Your task to perform on an android device: When is my next appointment? Image 0: 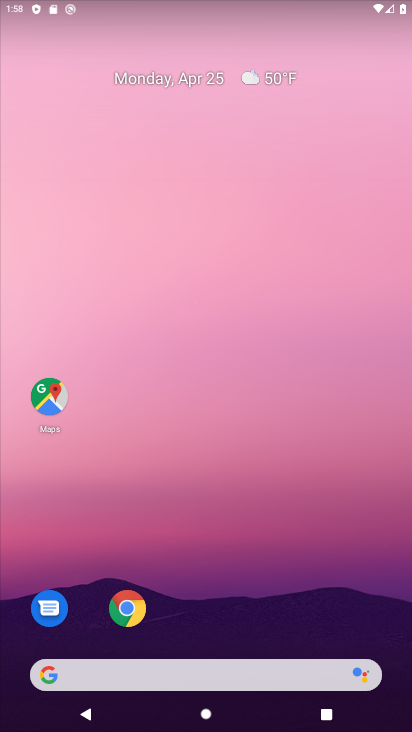
Step 0: drag from (216, 635) to (217, 297)
Your task to perform on an android device: When is my next appointment? Image 1: 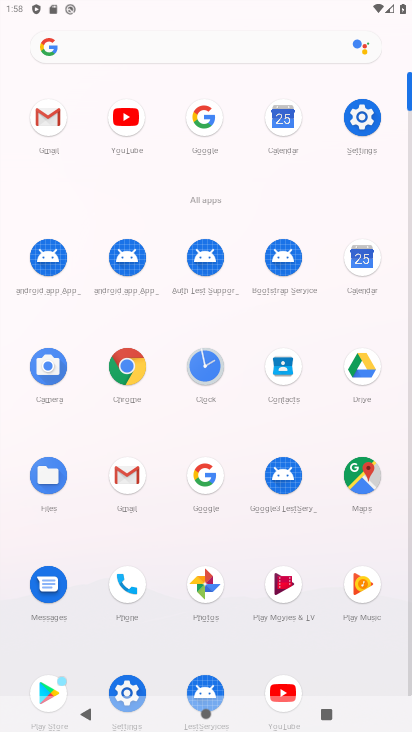
Step 1: click (351, 267)
Your task to perform on an android device: When is my next appointment? Image 2: 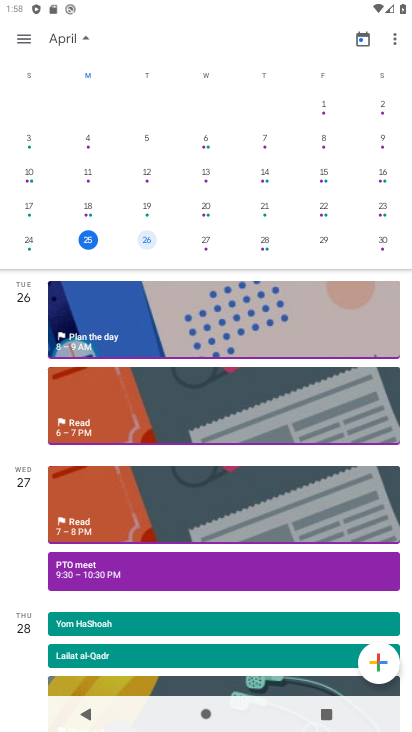
Step 2: click (390, 38)
Your task to perform on an android device: When is my next appointment? Image 3: 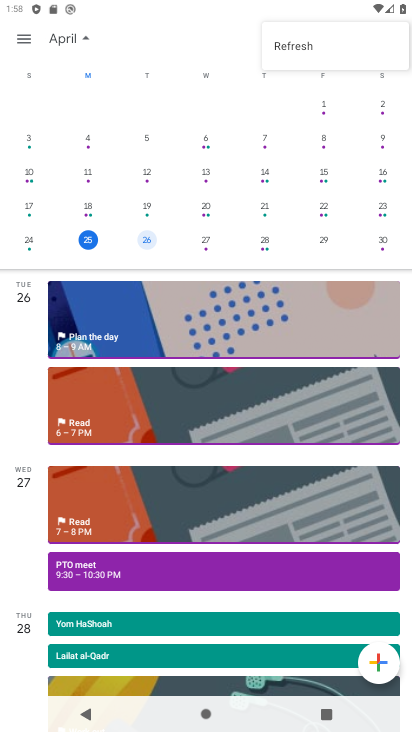
Step 3: click (204, 36)
Your task to perform on an android device: When is my next appointment? Image 4: 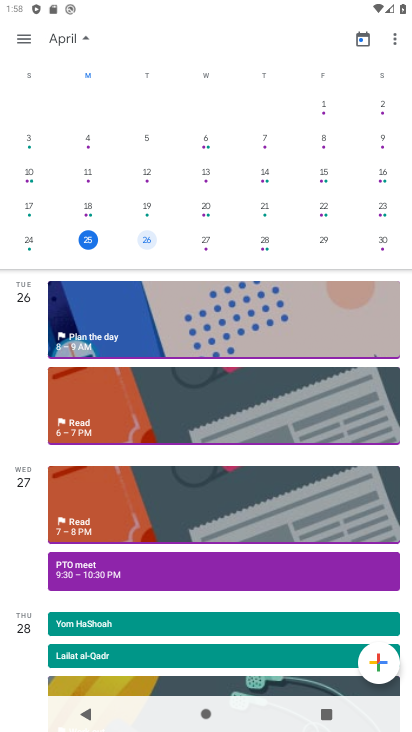
Step 4: click (149, 239)
Your task to perform on an android device: When is my next appointment? Image 5: 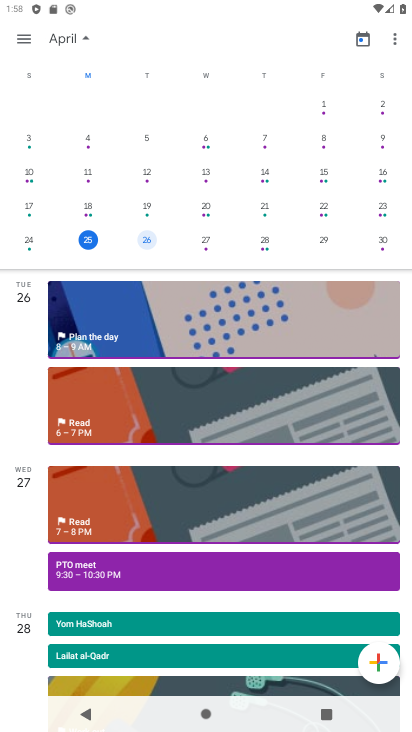
Step 5: click (205, 240)
Your task to perform on an android device: When is my next appointment? Image 6: 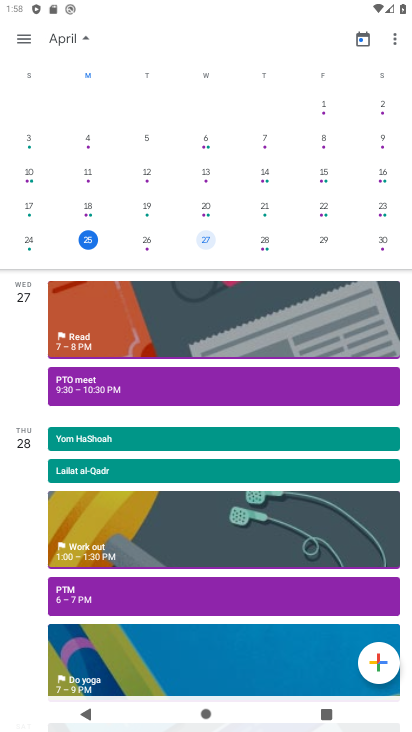
Step 6: click (288, 240)
Your task to perform on an android device: When is my next appointment? Image 7: 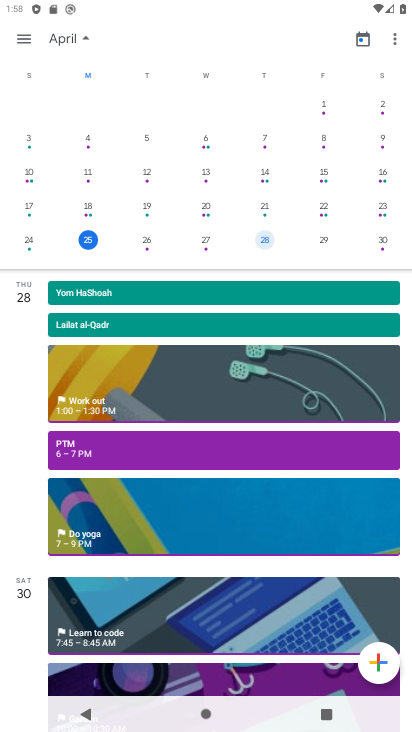
Step 7: click (31, 38)
Your task to perform on an android device: When is my next appointment? Image 8: 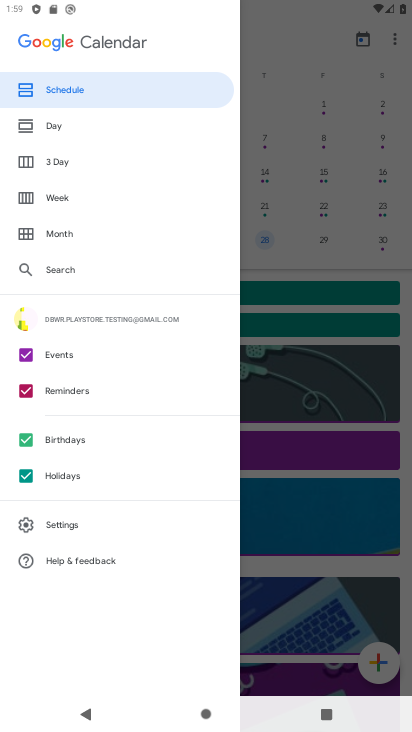
Step 8: click (294, 251)
Your task to perform on an android device: When is my next appointment? Image 9: 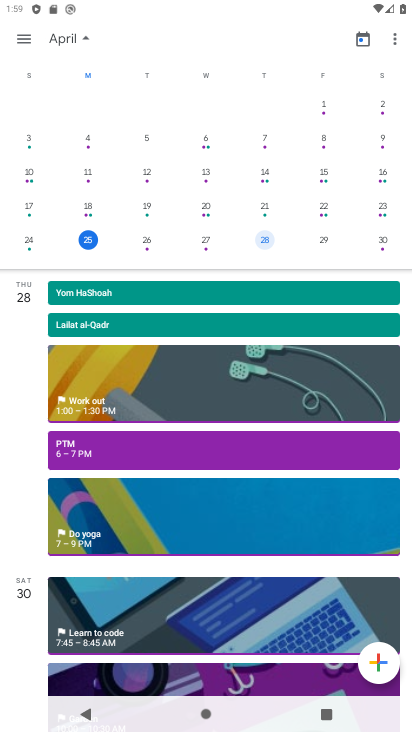
Step 9: click (311, 238)
Your task to perform on an android device: When is my next appointment? Image 10: 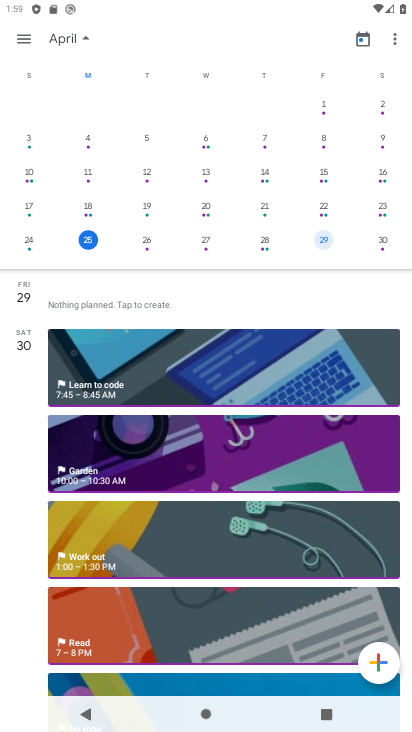
Step 10: task complete